Your task to perform on an android device: toggle data saver in the chrome app Image 0: 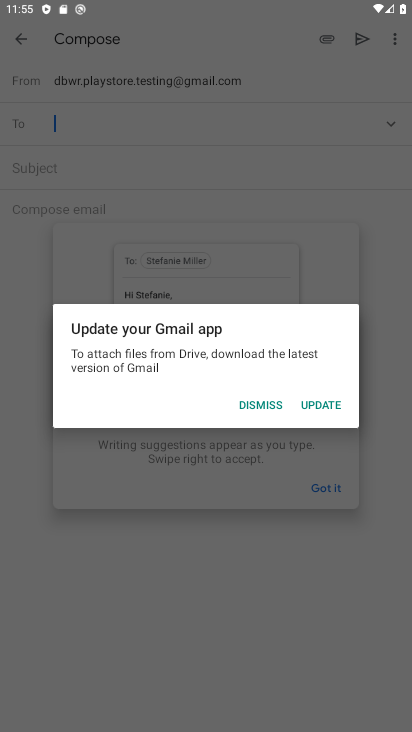
Step 0: click (243, 414)
Your task to perform on an android device: toggle data saver in the chrome app Image 1: 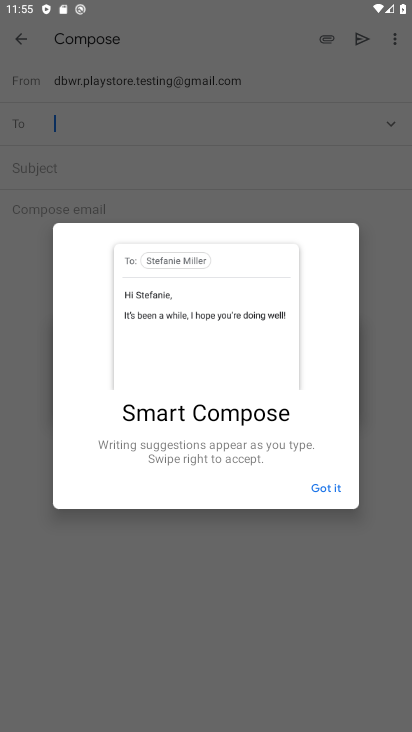
Step 1: click (338, 497)
Your task to perform on an android device: toggle data saver in the chrome app Image 2: 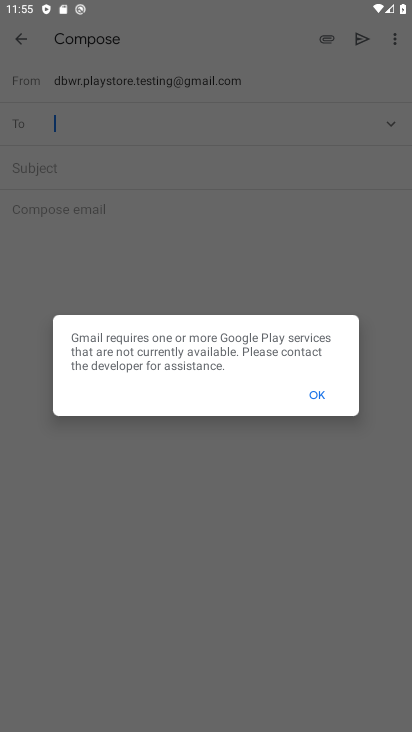
Step 2: click (303, 383)
Your task to perform on an android device: toggle data saver in the chrome app Image 3: 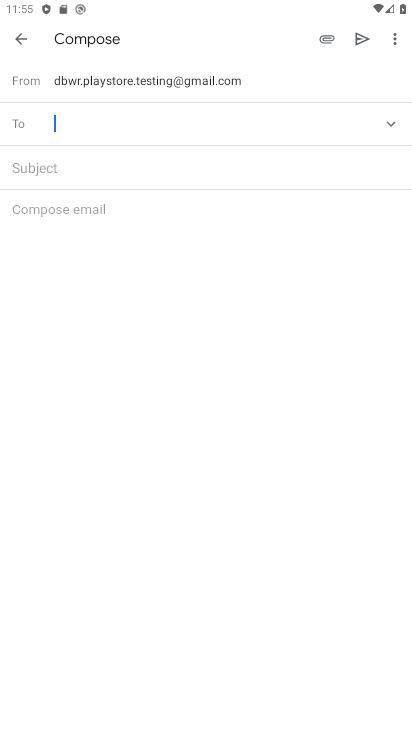
Step 3: press back button
Your task to perform on an android device: toggle data saver in the chrome app Image 4: 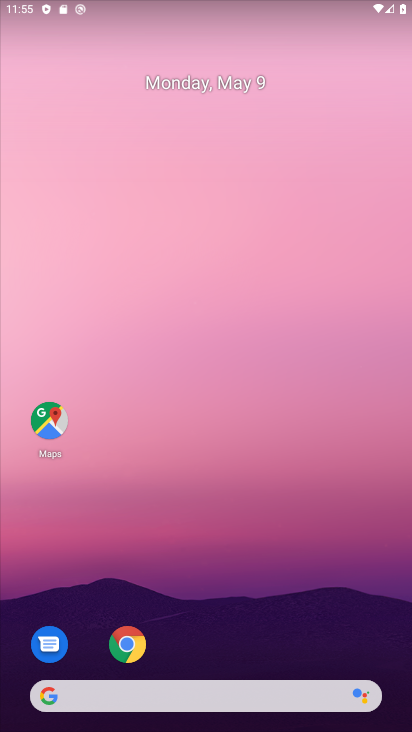
Step 4: click (125, 644)
Your task to perform on an android device: toggle data saver in the chrome app Image 5: 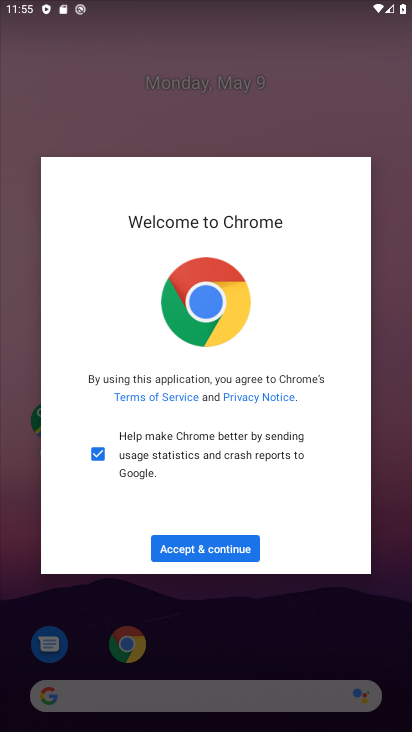
Step 5: click (191, 552)
Your task to perform on an android device: toggle data saver in the chrome app Image 6: 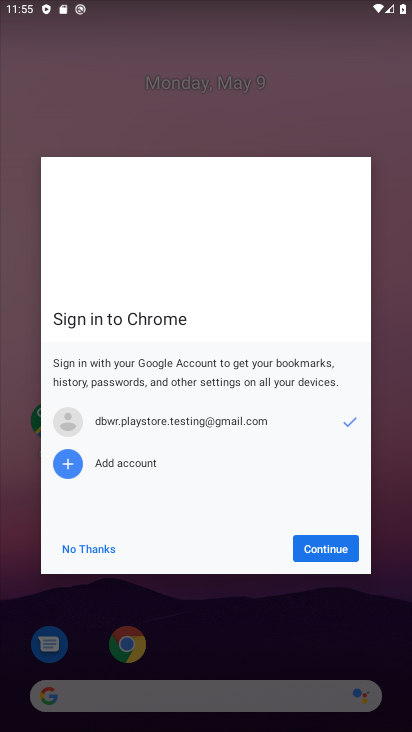
Step 6: click (358, 543)
Your task to perform on an android device: toggle data saver in the chrome app Image 7: 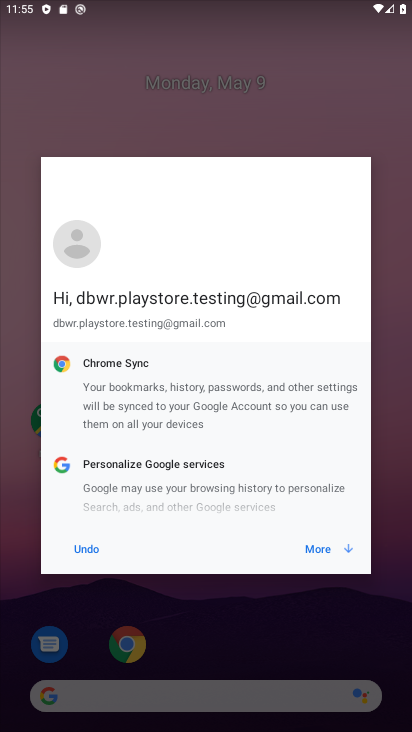
Step 7: click (324, 551)
Your task to perform on an android device: toggle data saver in the chrome app Image 8: 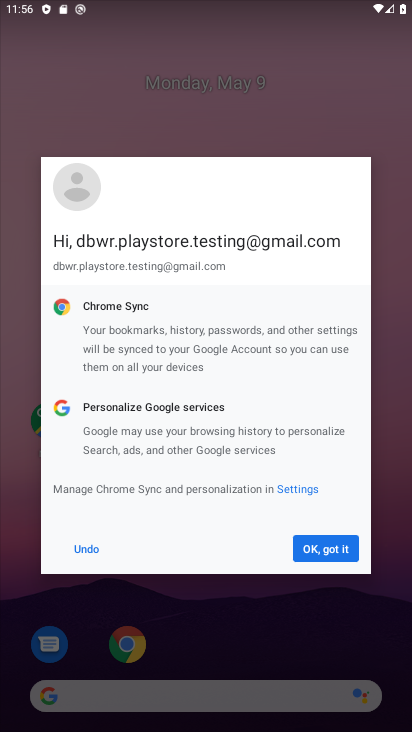
Step 8: click (322, 543)
Your task to perform on an android device: toggle data saver in the chrome app Image 9: 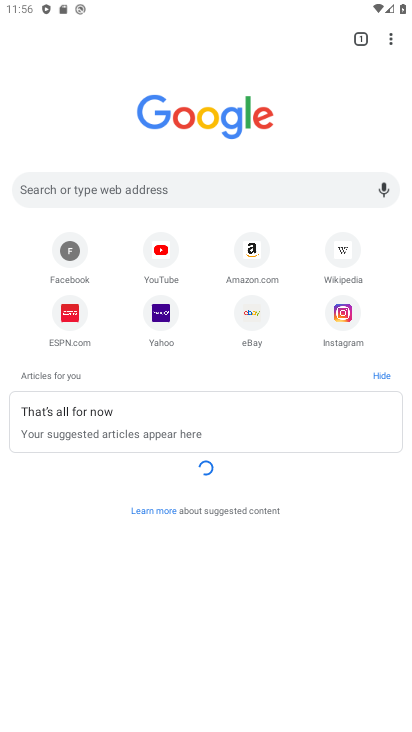
Step 9: drag from (388, 41) to (255, 326)
Your task to perform on an android device: toggle data saver in the chrome app Image 10: 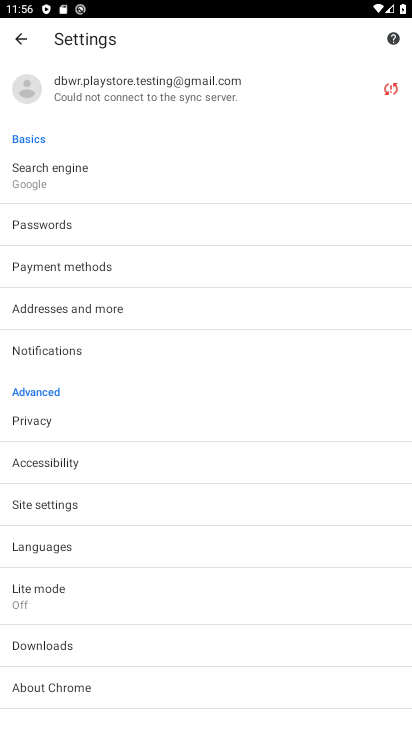
Step 10: click (48, 509)
Your task to perform on an android device: toggle data saver in the chrome app Image 11: 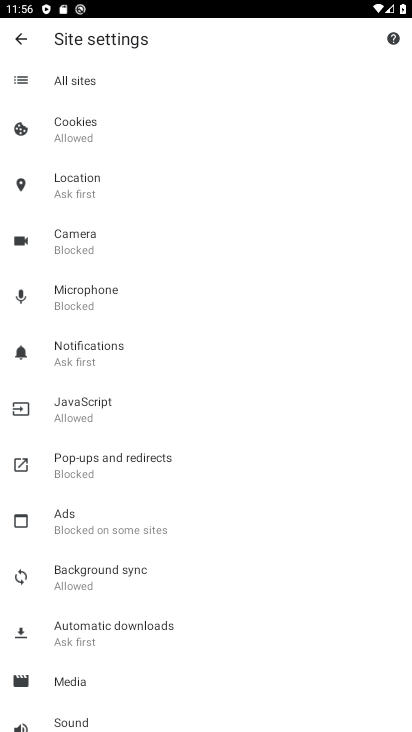
Step 11: click (20, 48)
Your task to perform on an android device: toggle data saver in the chrome app Image 12: 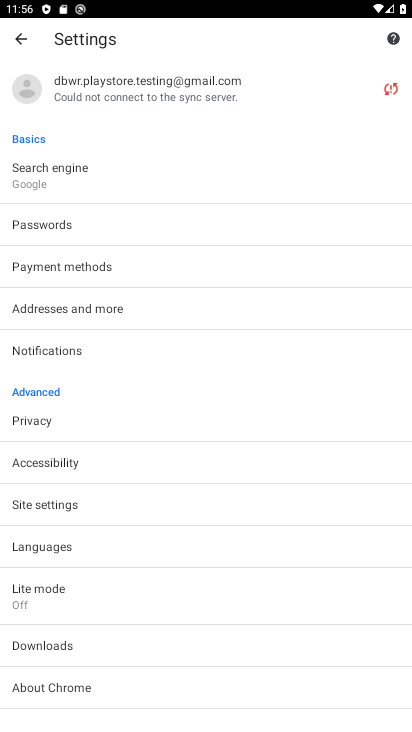
Step 12: click (84, 589)
Your task to perform on an android device: toggle data saver in the chrome app Image 13: 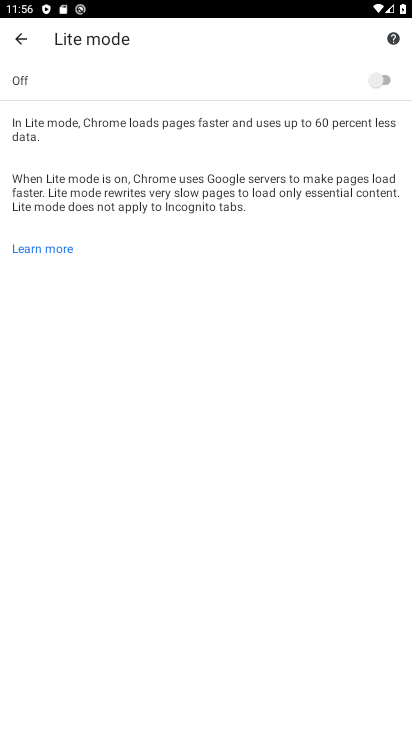
Step 13: click (379, 78)
Your task to perform on an android device: toggle data saver in the chrome app Image 14: 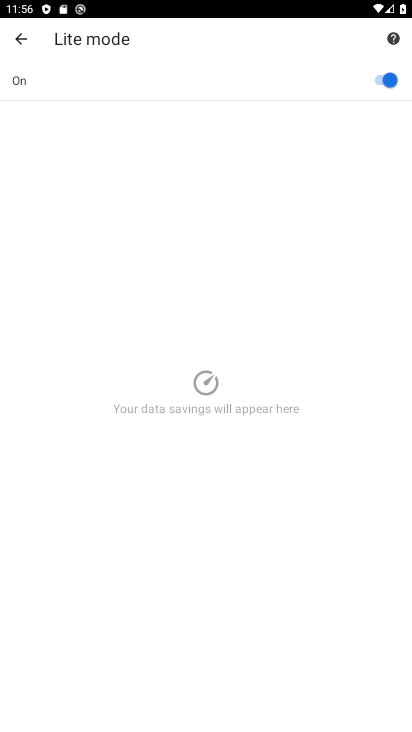
Step 14: task complete